Your task to perform on an android device: Go to Maps Image 0: 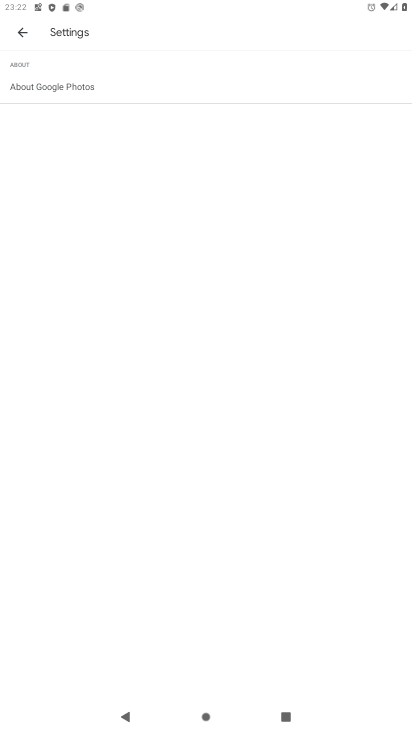
Step 0: press home button
Your task to perform on an android device: Go to Maps Image 1: 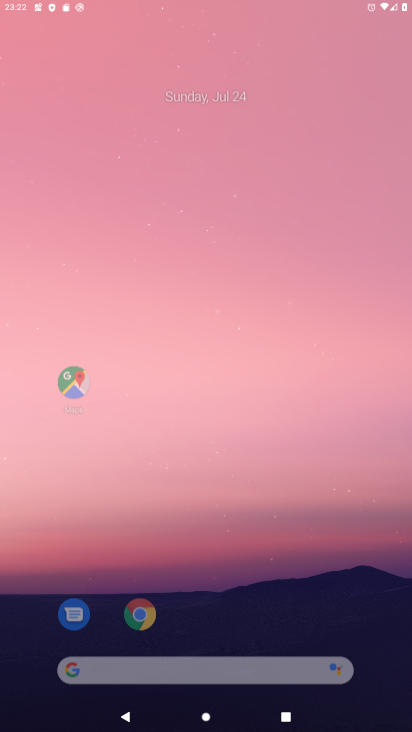
Step 1: drag from (231, 551) to (276, 250)
Your task to perform on an android device: Go to Maps Image 2: 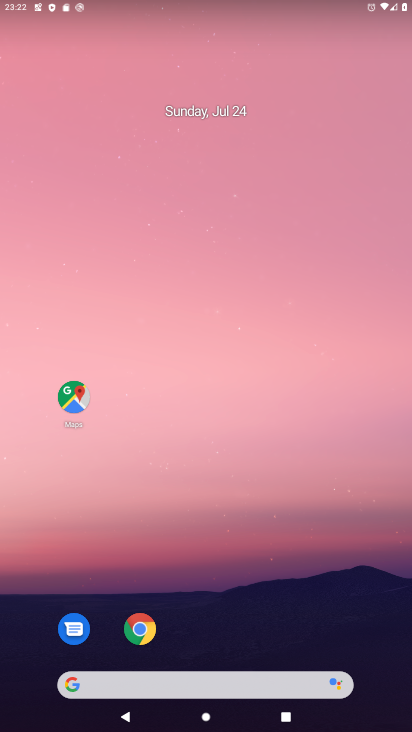
Step 2: drag from (216, 593) to (262, 75)
Your task to perform on an android device: Go to Maps Image 3: 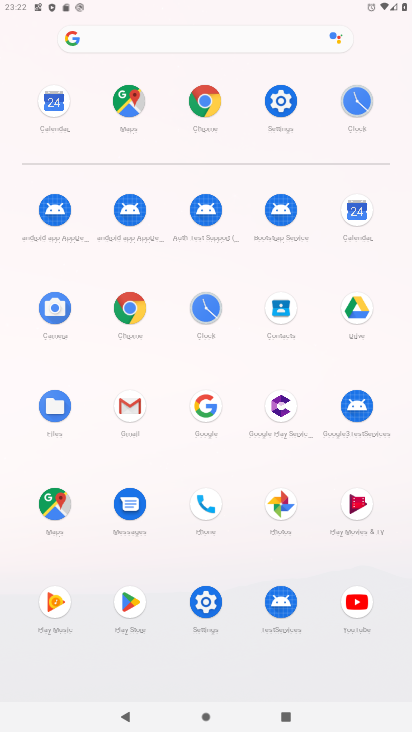
Step 3: click (50, 497)
Your task to perform on an android device: Go to Maps Image 4: 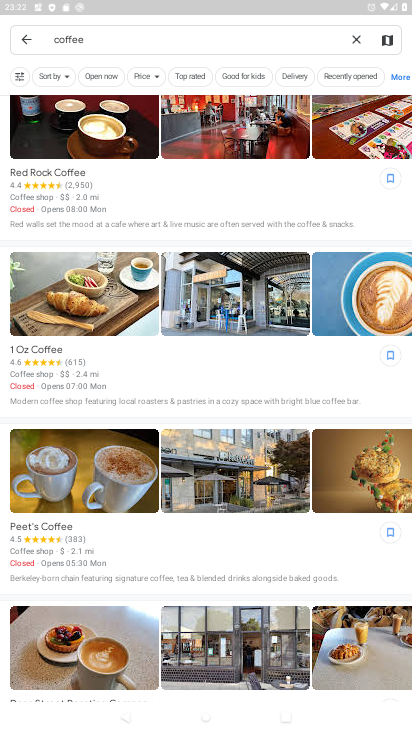
Step 4: task complete